Your task to perform on an android device: Open network settings Image 0: 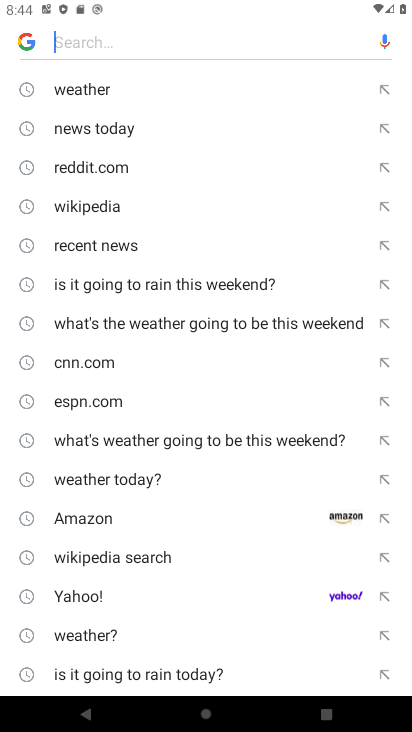
Step 0: press home button
Your task to perform on an android device: Open network settings Image 1: 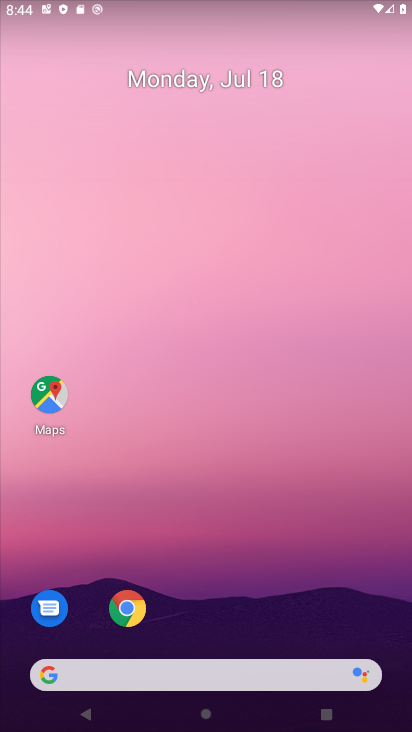
Step 1: drag from (235, 629) to (202, 75)
Your task to perform on an android device: Open network settings Image 2: 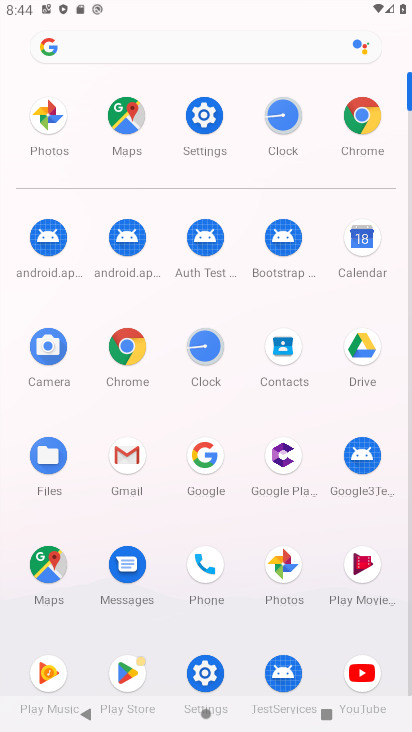
Step 2: click (204, 119)
Your task to perform on an android device: Open network settings Image 3: 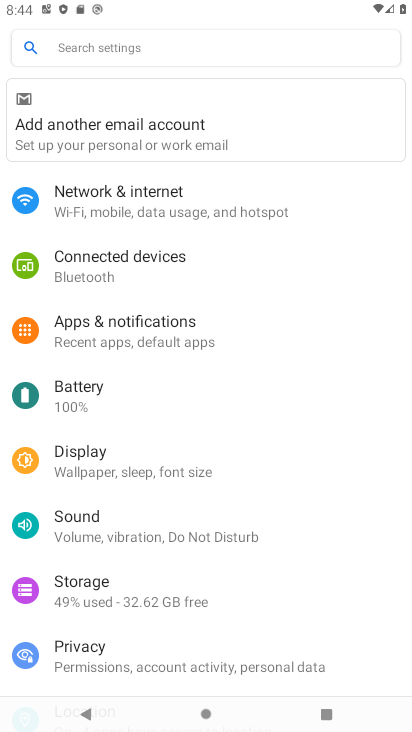
Step 3: click (107, 199)
Your task to perform on an android device: Open network settings Image 4: 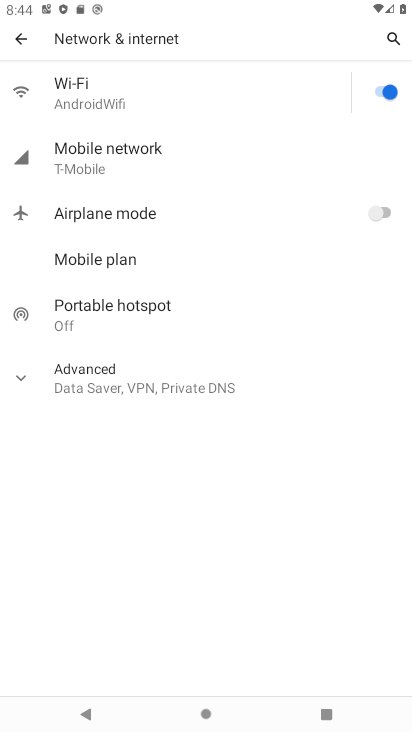
Step 4: click (83, 157)
Your task to perform on an android device: Open network settings Image 5: 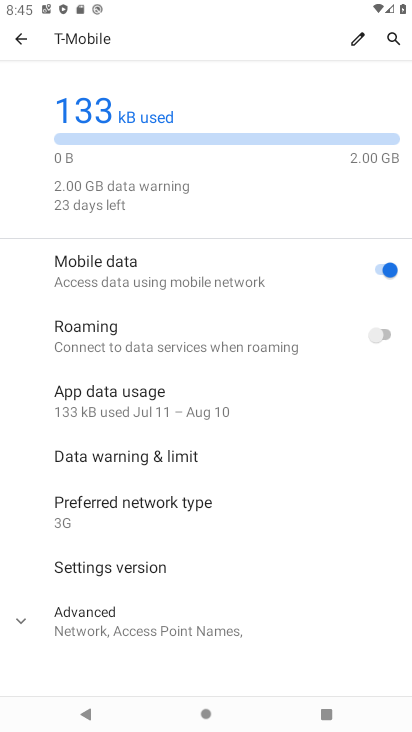
Step 5: task complete